Your task to perform on an android device: visit the assistant section in the google photos Image 0: 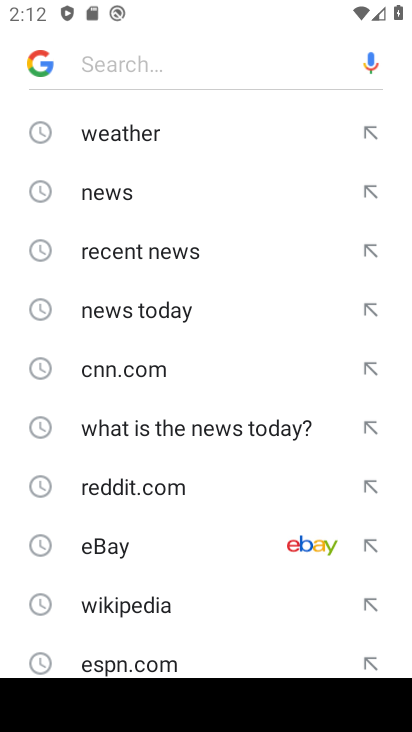
Step 0: press back button
Your task to perform on an android device: visit the assistant section in the google photos Image 1: 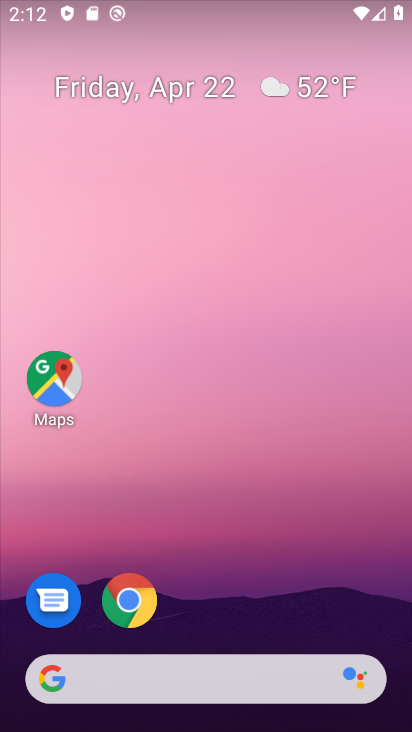
Step 1: drag from (252, 566) to (203, 35)
Your task to perform on an android device: visit the assistant section in the google photos Image 2: 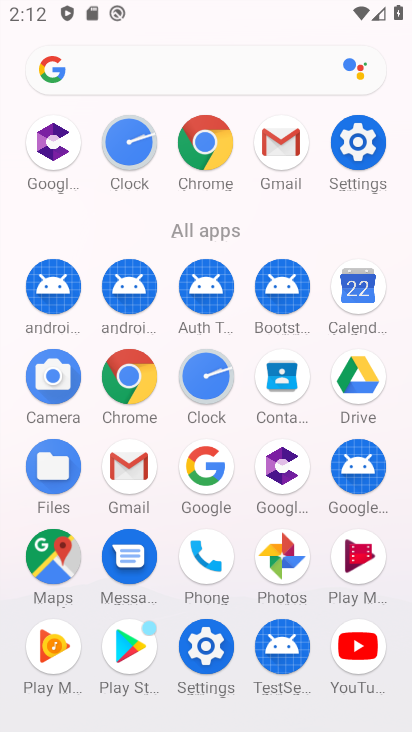
Step 2: click (276, 556)
Your task to perform on an android device: visit the assistant section in the google photos Image 3: 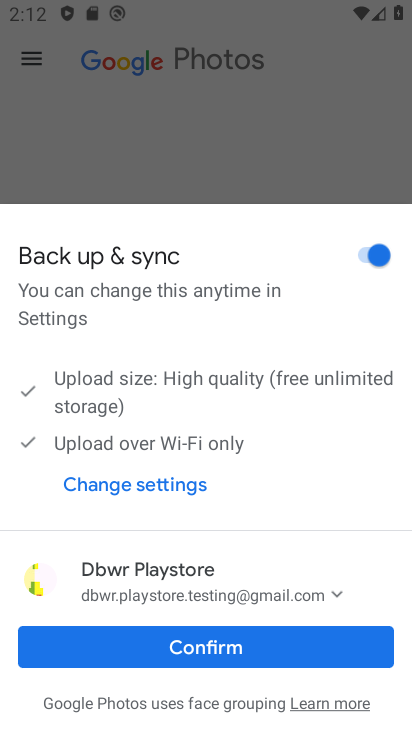
Step 3: click (219, 636)
Your task to perform on an android device: visit the assistant section in the google photos Image 4: 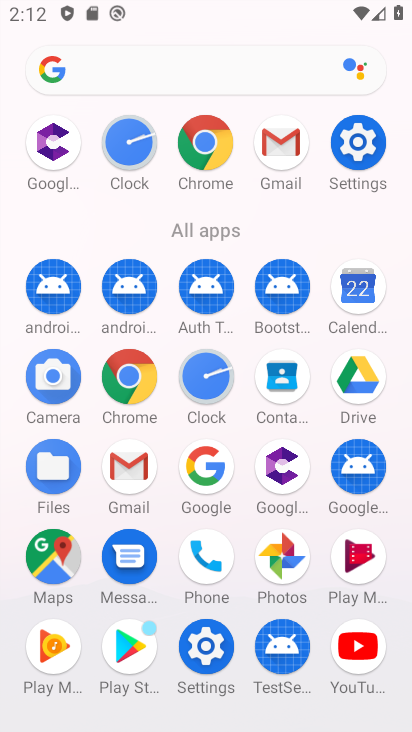
Step 4: click (279, 554)
Your task to perform on an android device: visit the assistant section in the google photos Image 5: 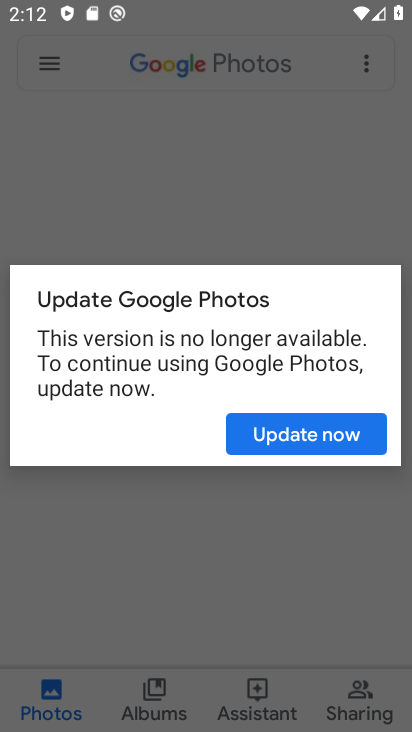
Step 5: click (296, 430)
Your task to perform on an android device: visit the assistant section in the google photos Image 6: 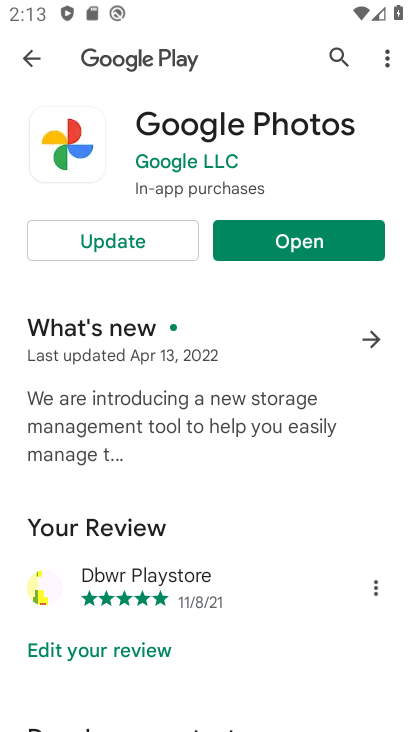
Step 6: click (110, 245)
Your task to perform on an android device: visit the assistant section in the google photos Image 7: 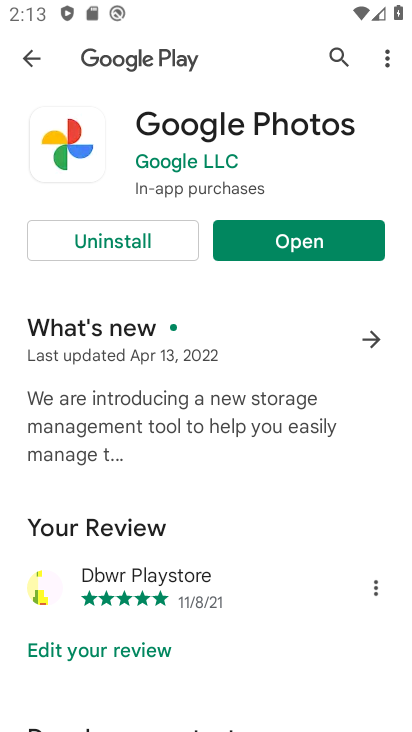
Step 7: click (273, 233)
Your task to perform on an android device: visit the assistant section in the google photos Image 8: 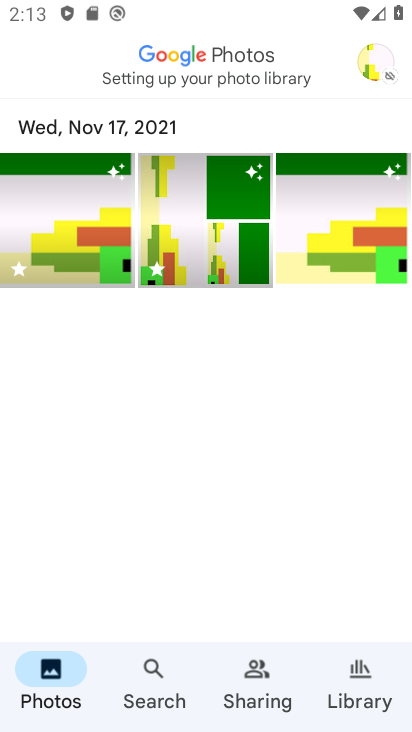
Step 8: click (359, 672)
Your task to perform on an android device: visit the assistant section in the google photos Image 9: 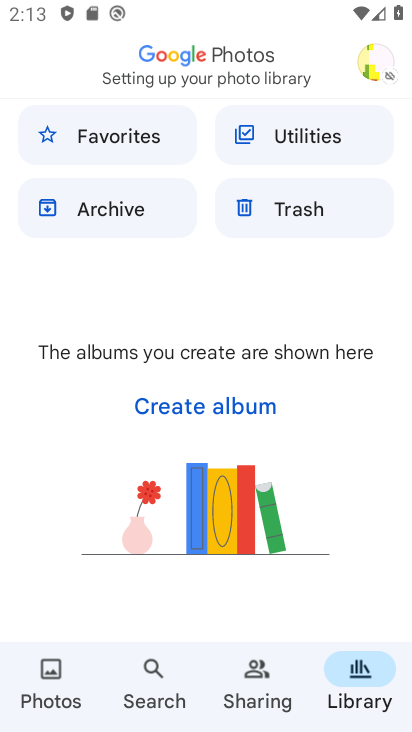
Step 9: click (262, 690)
Your task to perform on an android device: visit the assistant section in the google photos Image 10: 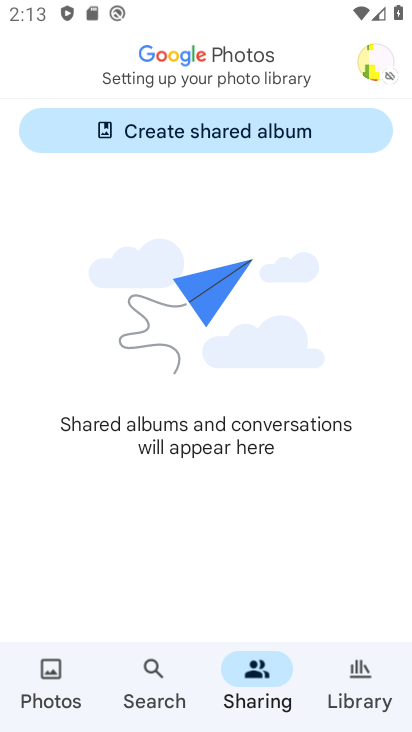
Step 10: click (158, 677)
Your task to perform on an android device: visit the assistant section in the google photos Image 11: 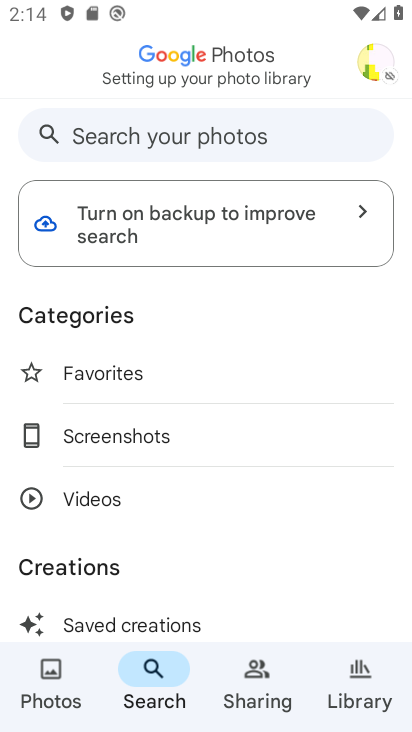
Step 11: drag from (285, 523) to (317, 208)
Your task to perform on an android device: visit the assistant section in the google photos Image 12: 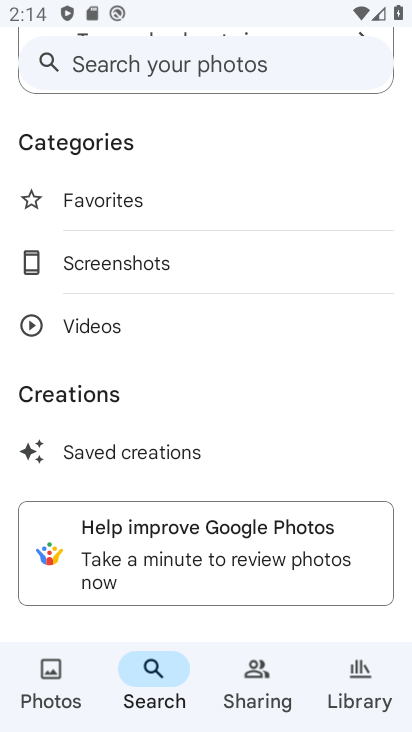
Step 12: drag from (299, 436) to (307, 138)
Your task to perform on an android device: visit the assistant section in the google photos Image 13: 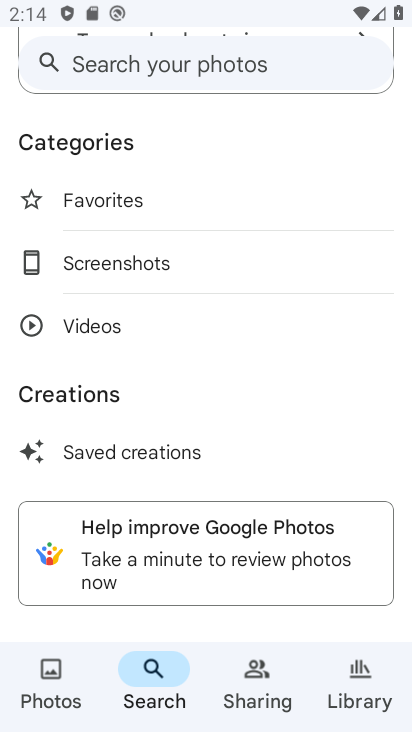
Step 13: click (44, 671)
Your task to perform on an android device: visit the assistant section in the google photos Image 14: 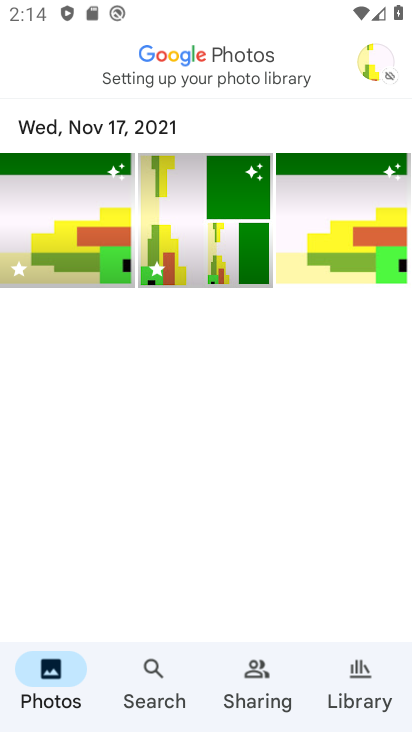
Step 14: task complete